Your task to perform on an android device: turn on javascript in the chrome app Image 0: 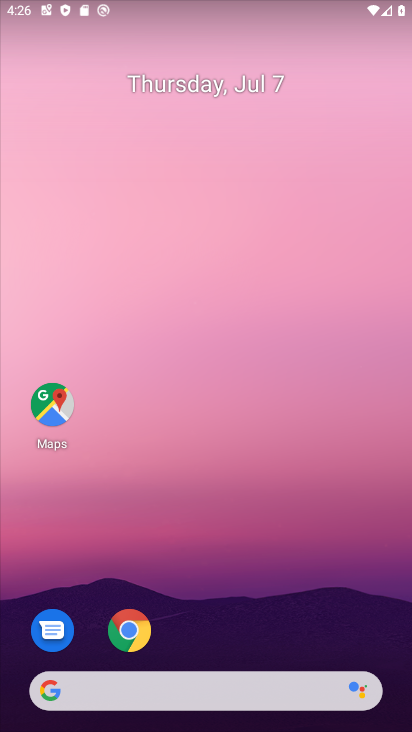
Step 0: click (114, 618)
Your task to perform on an android device: turn on javascript in the chrome app Image 1: 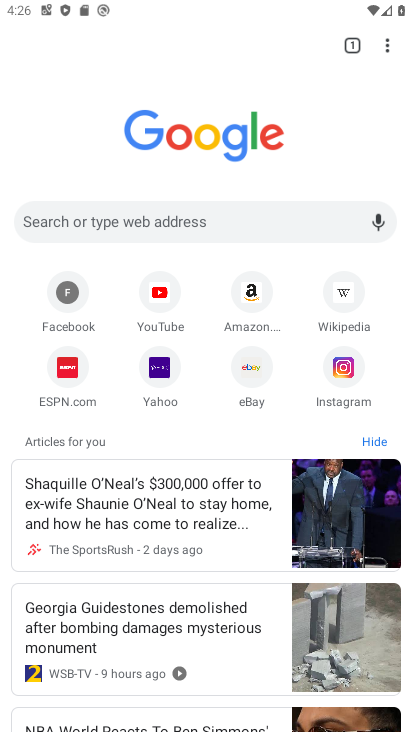
Step 1: click (391, 44)
Your task to perform on an android device: turn on javascript in the chrome app Image 2: 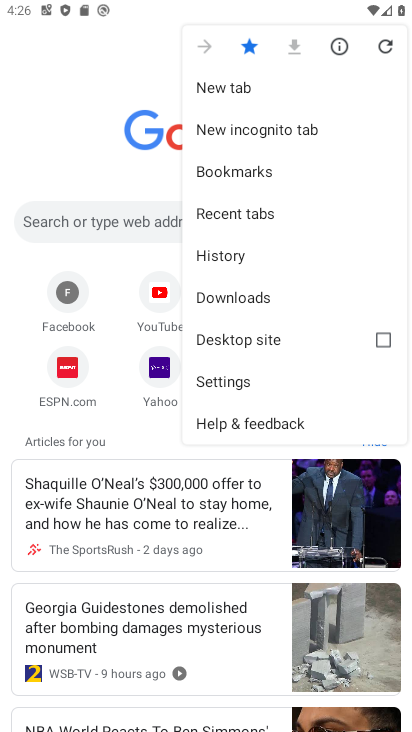
Step 2: click (246, 377)
Your task to perform on an android device: turn on javascript in the chrome app Image 3: 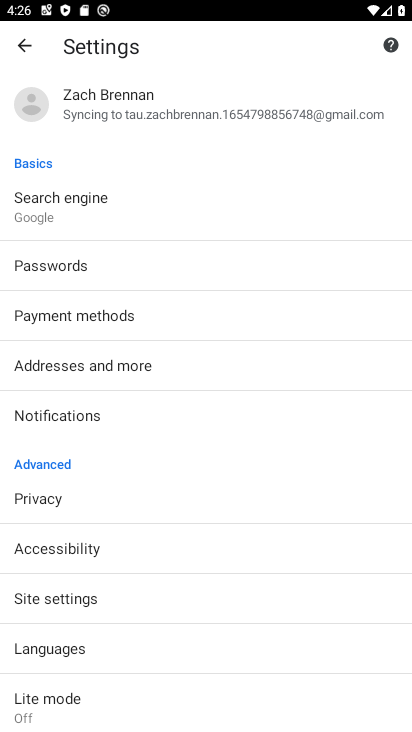
Step 3: drag from (116, 692) to (220, 175)
Your task to perform on an android device: turn on javascript in the chrome app Image 4: 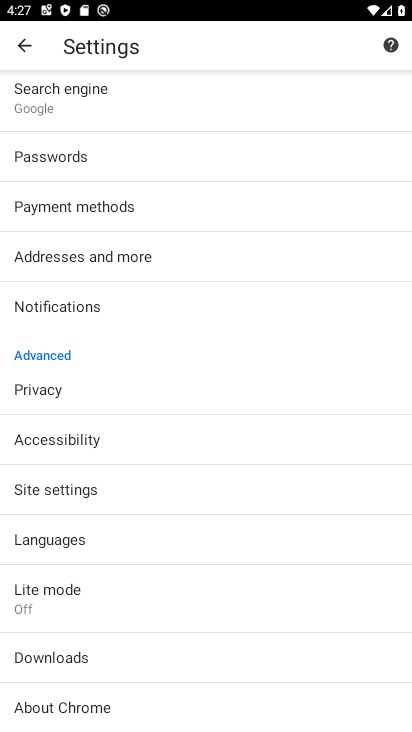
Step 4: click (66, 498)
Your task to perform on an android device: turn on javascript in the chrome app Image 5: 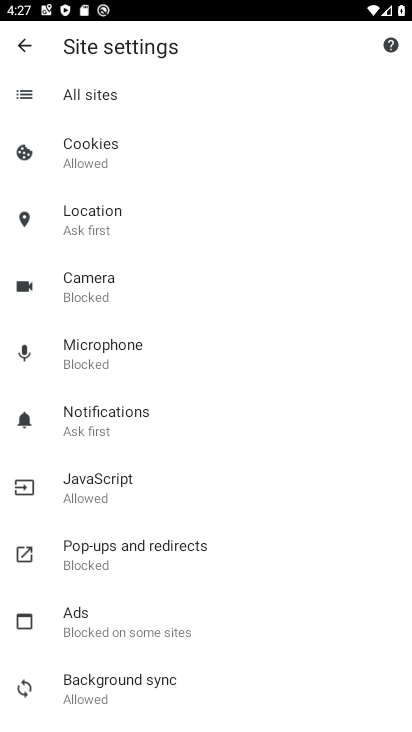
Step 5: click (89, 490)
Your task to perform on an android device: turn on javascript in the chrome app Image 6: 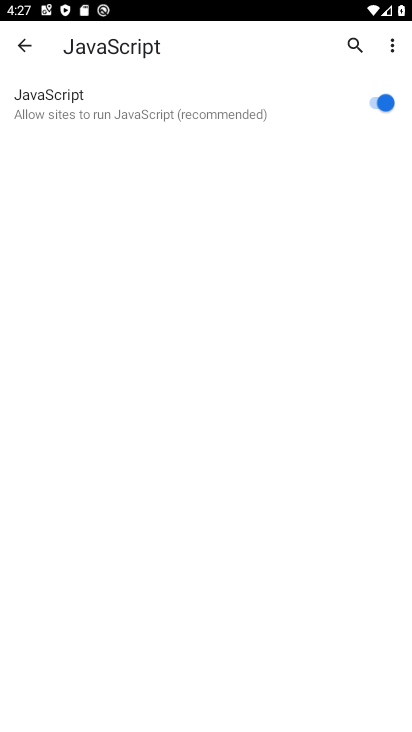
Step 6: task complete